Your task to perform on an android device: Open eBay Image 0: 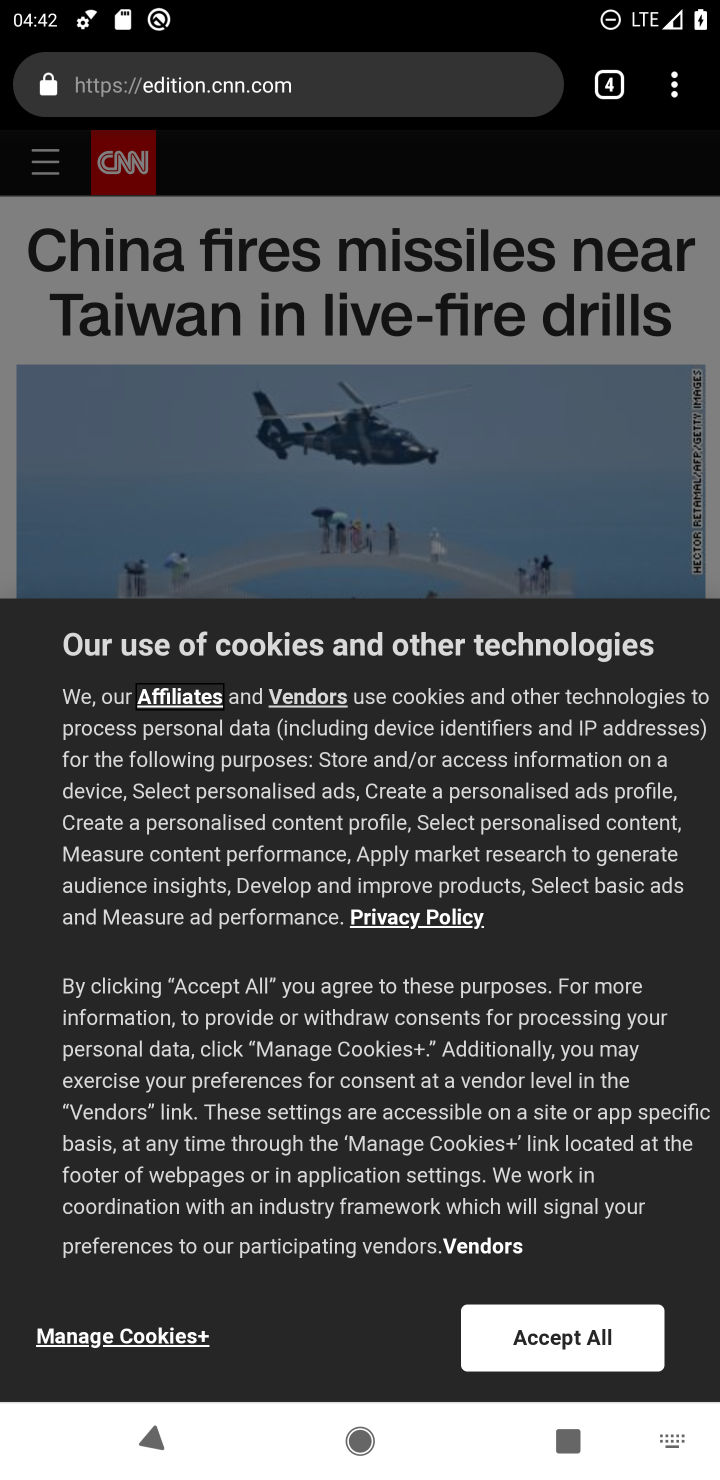
Step 0: click (306, 98)
Your task to perform on an android device: Open eBay Image 1: 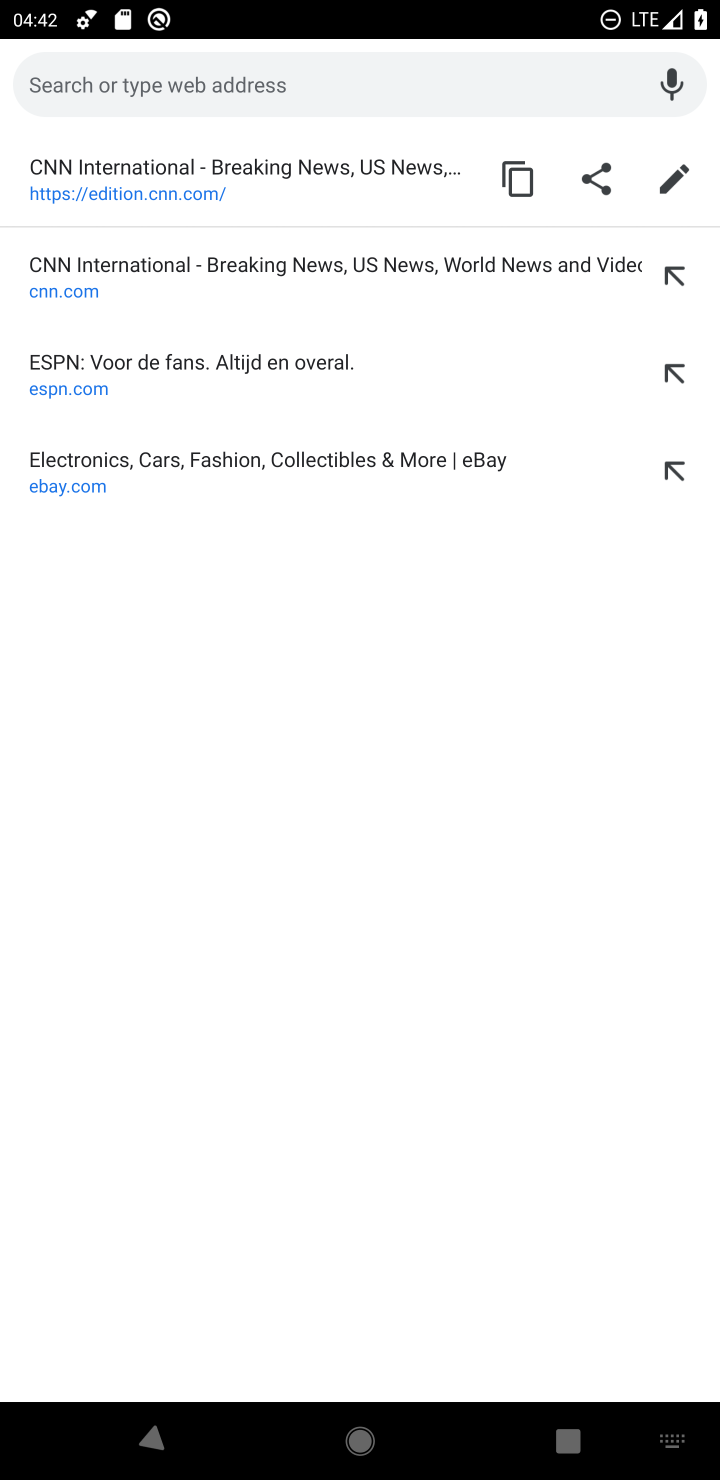
Step 1: click (365, 516)
Your task to perform on an android device: Open eBay Image 2: 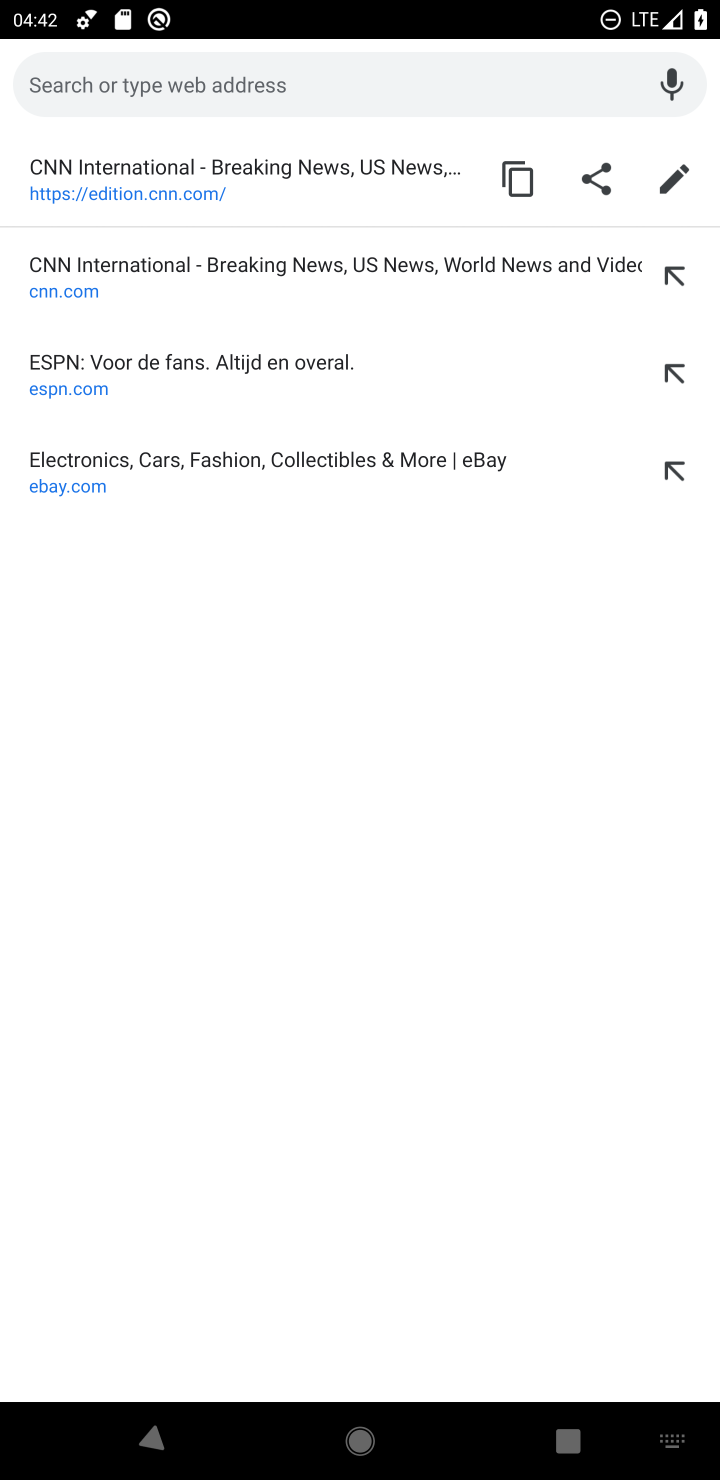
Step 2: click (279, 453)
Your task to perform on an android device: Open eBay Image 3: 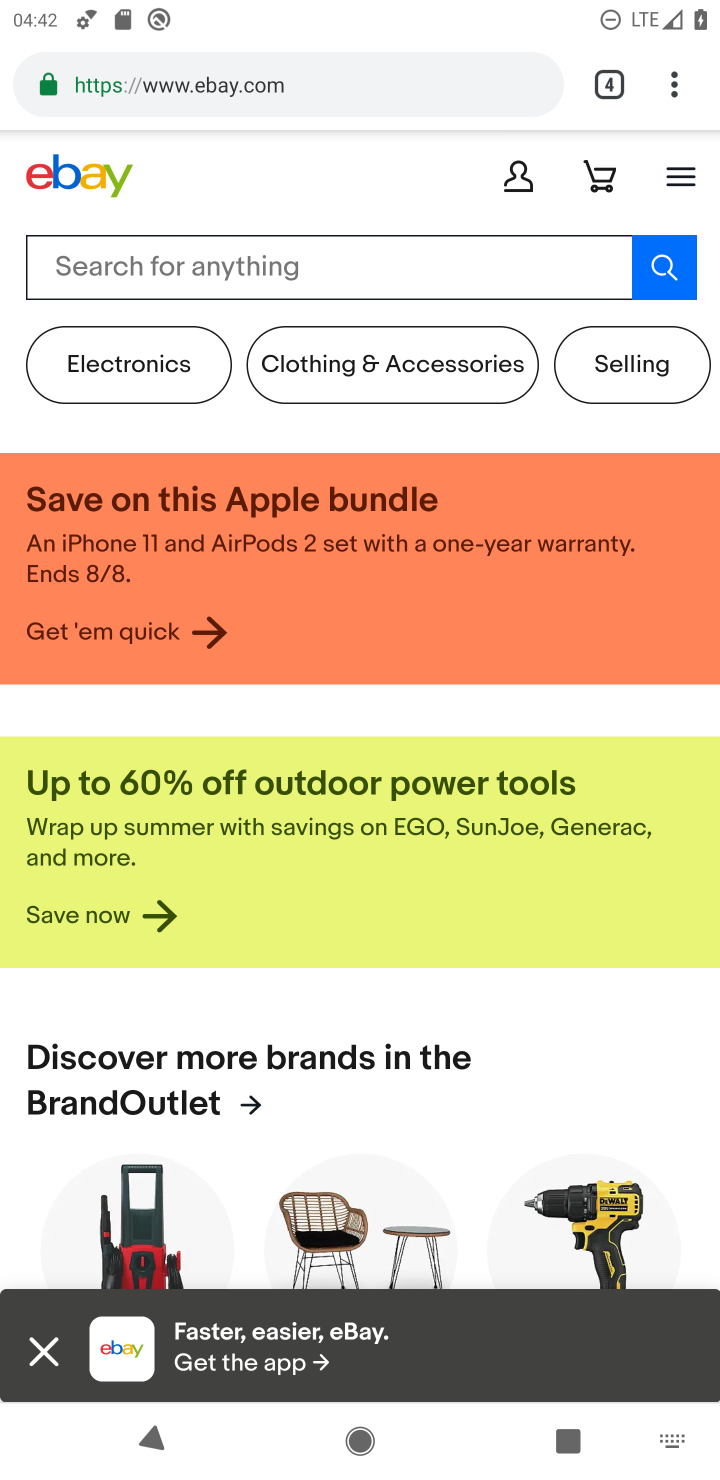
Step 3: task complete